Your task to perform on an android device: turn off data saver in the chrome app Image 0: 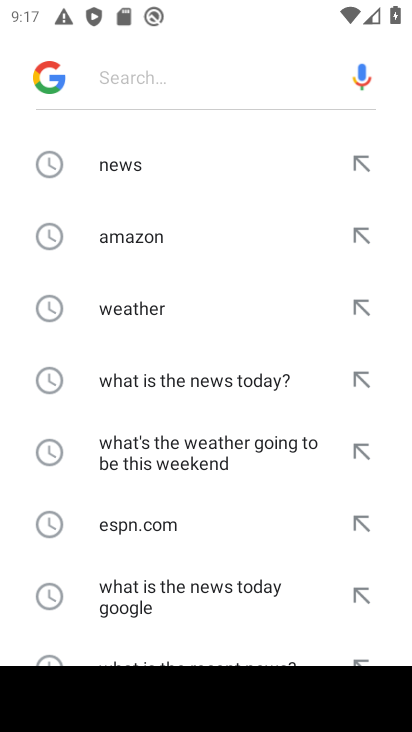
Step 0: press back button
Your task to perform on an android device: turn off data saver in the chrome app Image 1: 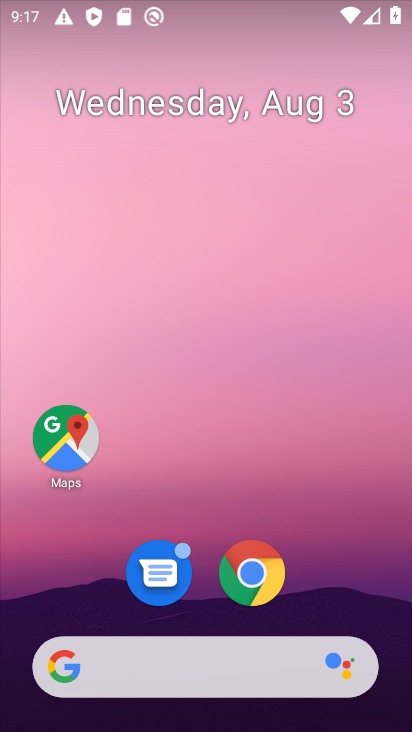
Step 1: drag from (240, 650) to (196, 100)
Your task to perform on an android device: turn off data saver in the chrome app Image 2: 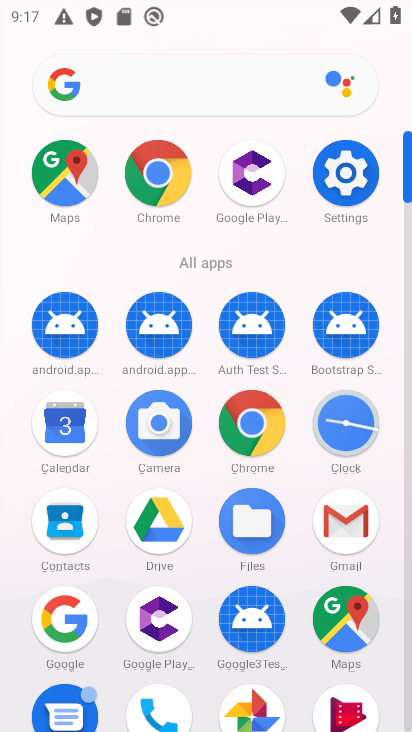
Step 2: click (164, 179)
Your task to perform on an android device: turn off data saver in the chrome app Image 3: 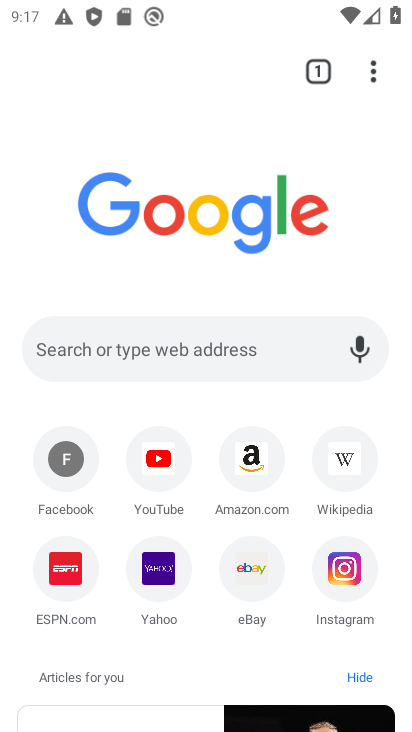
Step 3: drag from (375, 72) to (183, 590)
Your task to perform on an android device: turn off data saver in the chrome app Image 4: 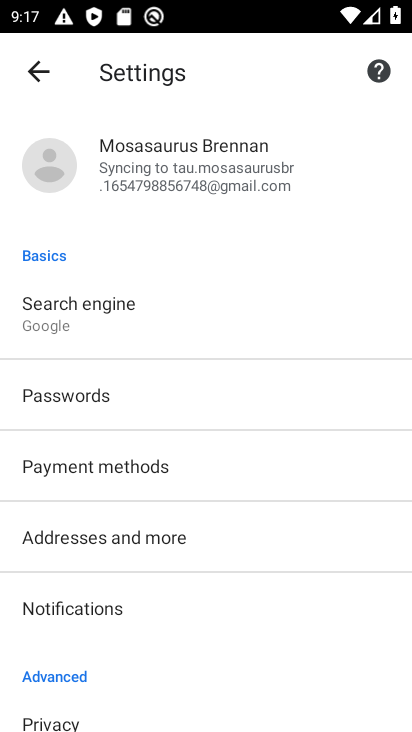
Step 4: drag from (190, 606) to (184, 45)
Your task to perform on an android device: turn off data saver in the chrome app Image 5: 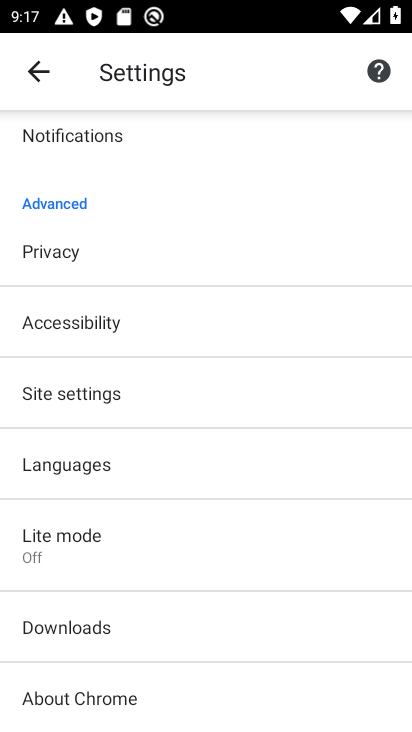
Step 5: click (130, 557)
Your task to perform on an android device: turn off data saver in the chrome app Image 6: 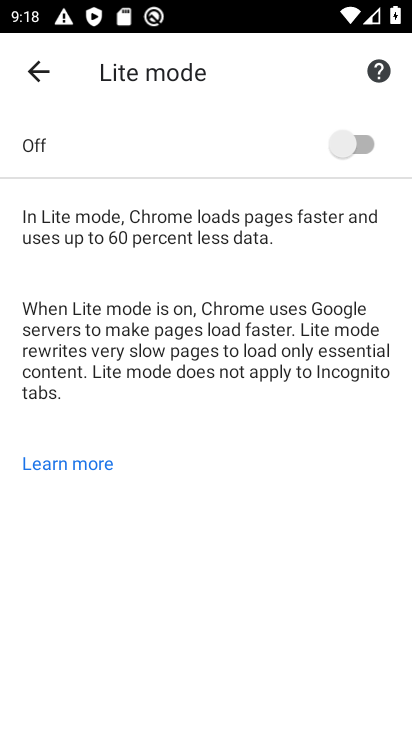
Step 6: task complete